Your task to perform on an android device: Open Google Chrome and open the bookmarks view Image 0: 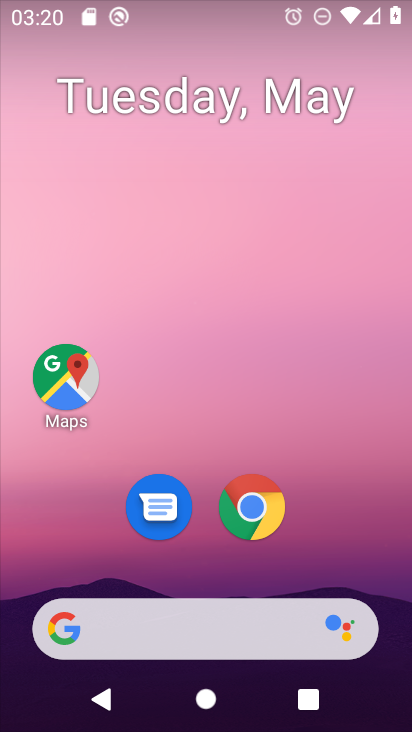
Step 0: click (251, 525)
Your task to perform on an android device: Open Google Chrome and open the bookmarks view Image 1: 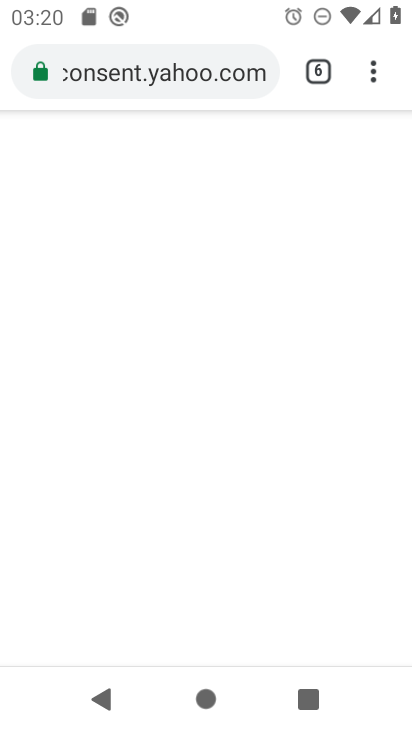
Step 1: task complete